Your task to perform on an android device: open app "Google Chat" (install if not already installed) Image 0: 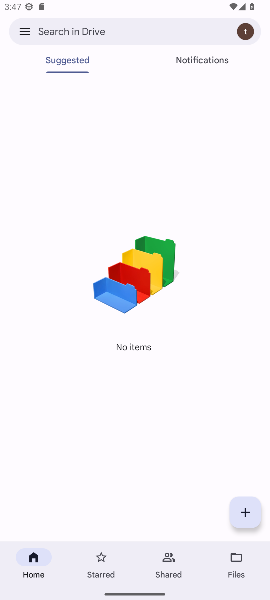
Step 0: press home button
Your task to perform on an android device: open app "Google Chat" (install if not already installed) Image 1: 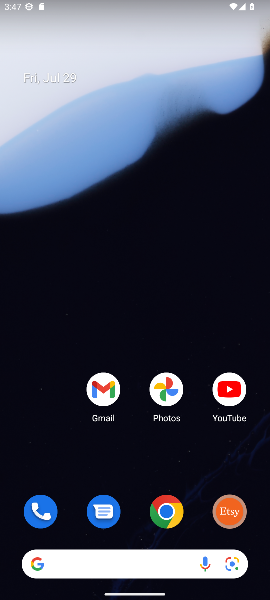
Step 1: drag from (31, 554) to (256, 100)
Your task to perform on an android device: open app "Google Chat" (install if not already installed) Image 2: 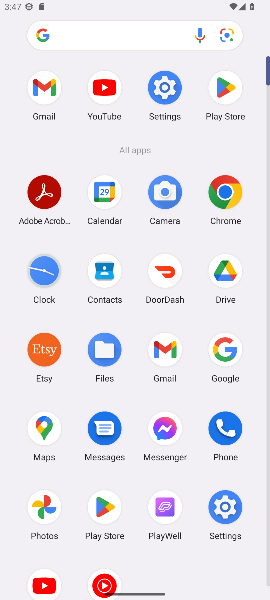
Step 2: click (99, 511)
Your task to perform on an android device: open app "Google Chat" (install if not already installed) Image 3: 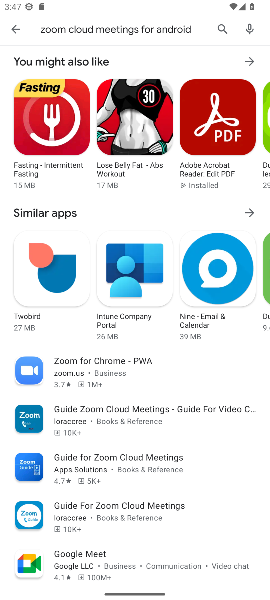
Step 3: click (12, 32)
Your task to perform on an android device: open app "Google Chat" (install if not already installed) Image 4: 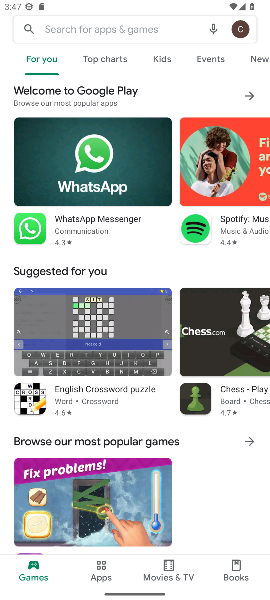
Step 4: click (87, 25)
Your task to perform on an android device: open app "Google Chat" (install if not already installed) Image 5: 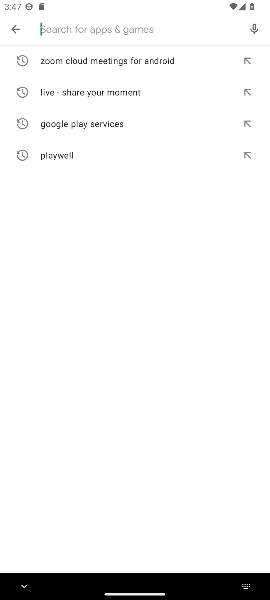
Step 5: type "Google Chat"
Your task to perform on an android device: open app "Google Chat" (install if not already installed) Image 6: 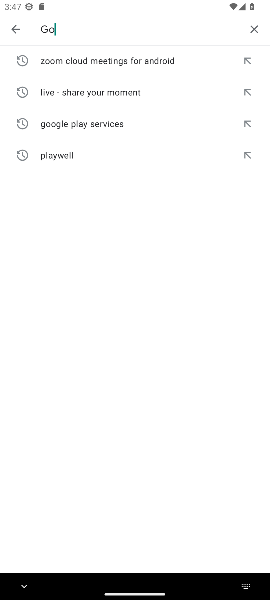
Step 6: type ""
Your task to perform on an android device: open app "Google Chat" (install if not already installed) Image 7: 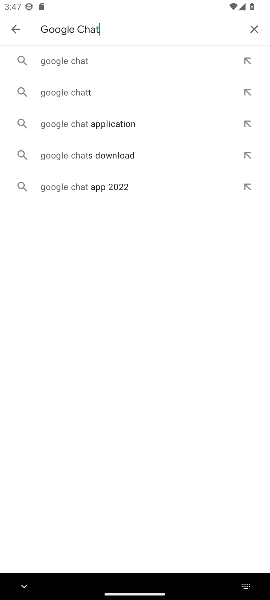
Step 7: click (52, 61)
Your task to perform on an android device: open app "Google Chat" (install if not already installed) Image 8: 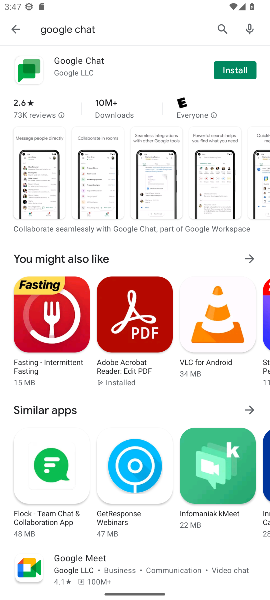
Step 8: click (232, 75)
Your task to perform on an android device: open app "Google Chat" (install if not already installed) Image 9: 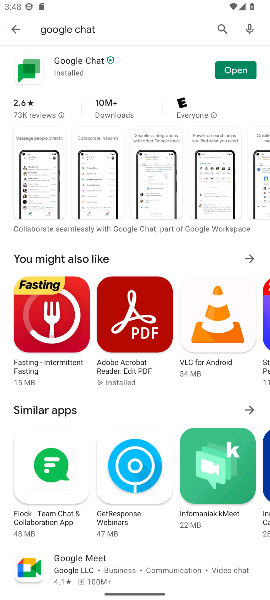
Step 9: task complete